Your task to perform on an android device: Open Google Maps and go to "Timeline" Image 0: 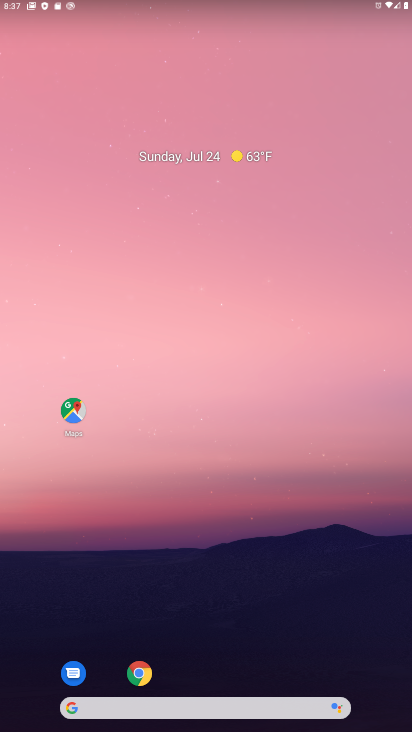
Step 0: drag from (276, 659) to (188, 87)
Your task to perform on an android device: Open Google Maps and go to "Timeline" Image 1: 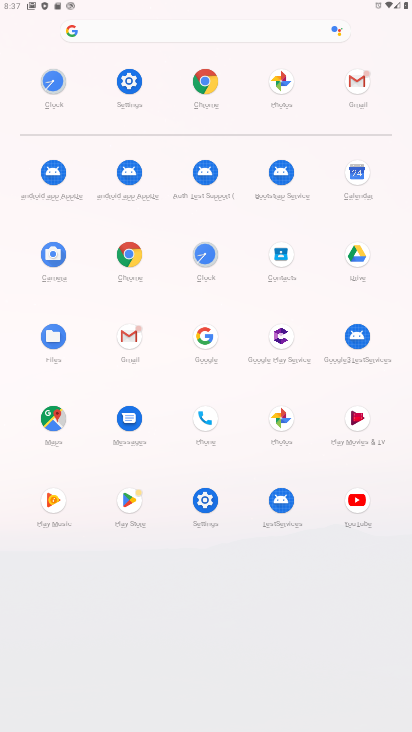
Step 1: click (59, 417)
Your task to perform on an android device: Open Google Maps and go to "Timeline" Image 2: 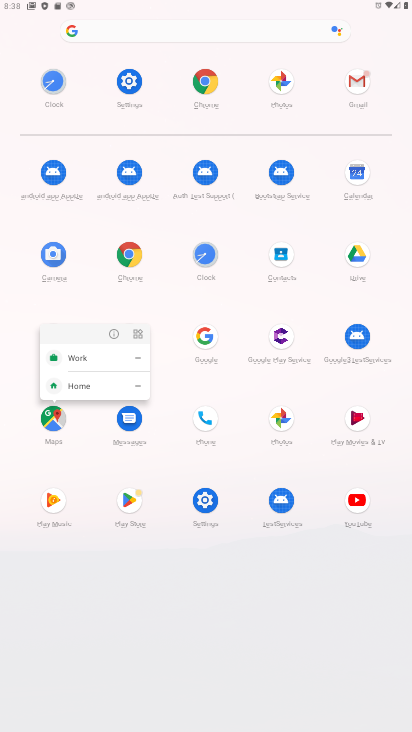
Step 2: click (51, 416)
Your task to perform on an android device: Open Google Maps and go to "Timeline" Image 3: 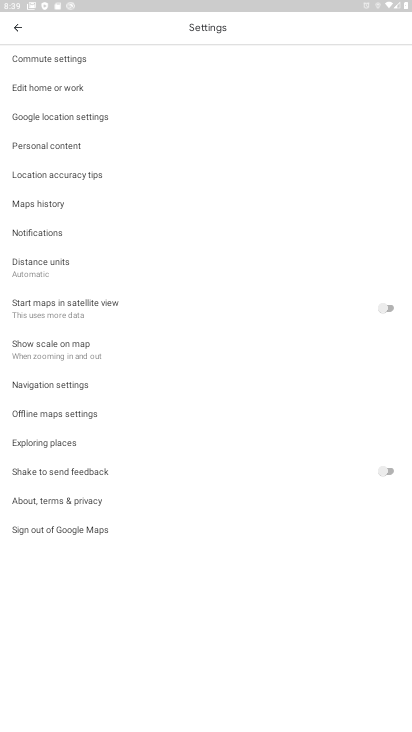
Step 3: task complete